Your task to perform on an android device: check out phone information Image 0: 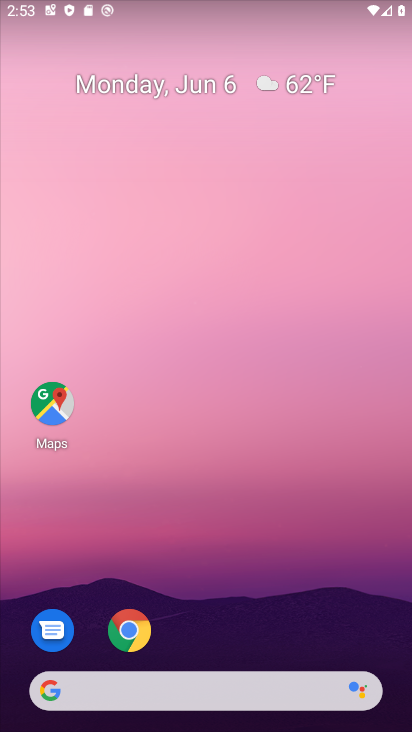
Step 0: drag from (242, 371) to (231, 264)
Your task to perform on an android device: check out phone information Image 1: 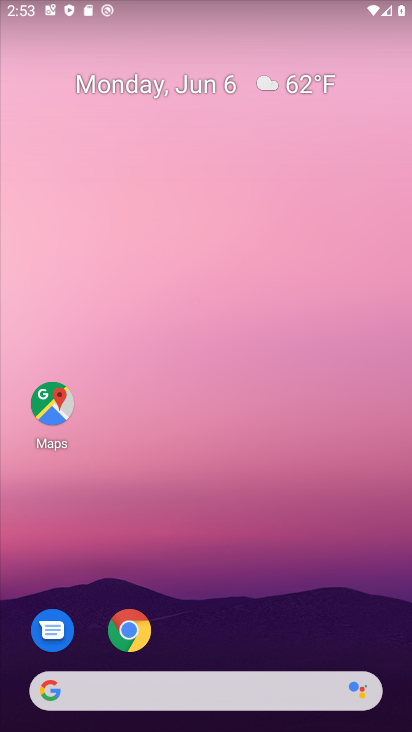
Step 1: drag from (218, 628) to (220, 181)
Your task to perform on an android device: check out phone information Image 2: 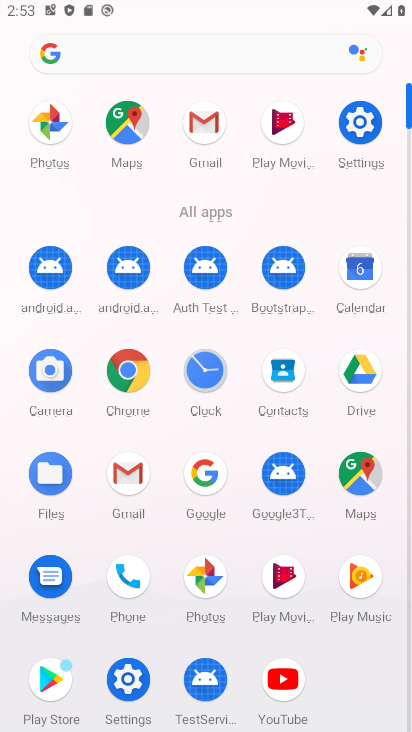
Step 2: click (354, 126)
Your task to perform on an android device: check out phone information Image 3: 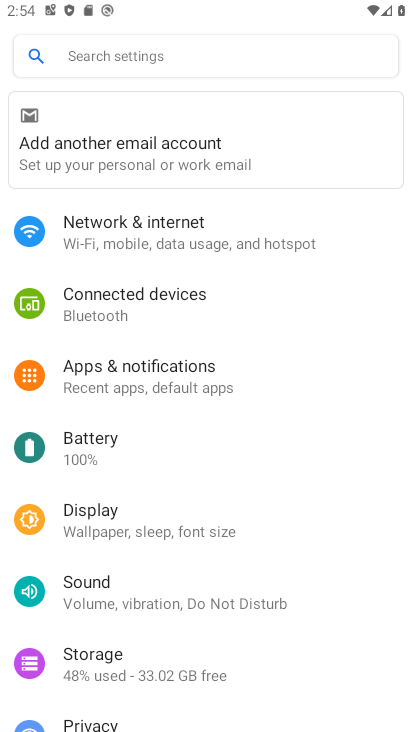
Step 3: drag from (268, 664) to (208, 233)
Your task to perform on an android device: check out phone information Image 4: 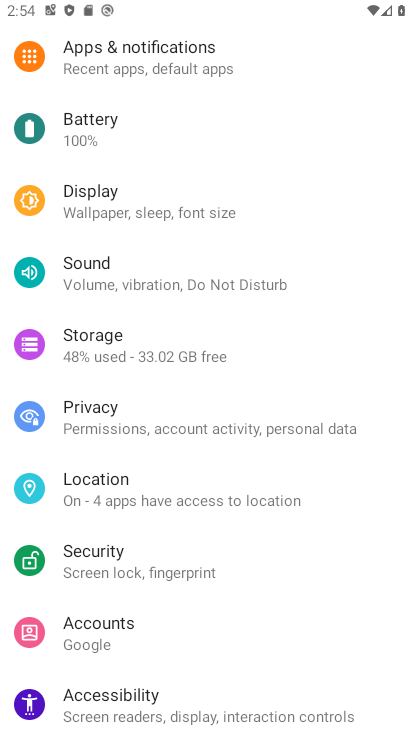
Step 4: drag from (223, 605) to (167, 234)
Your task to perform on an android device: check out phone information Image 5: 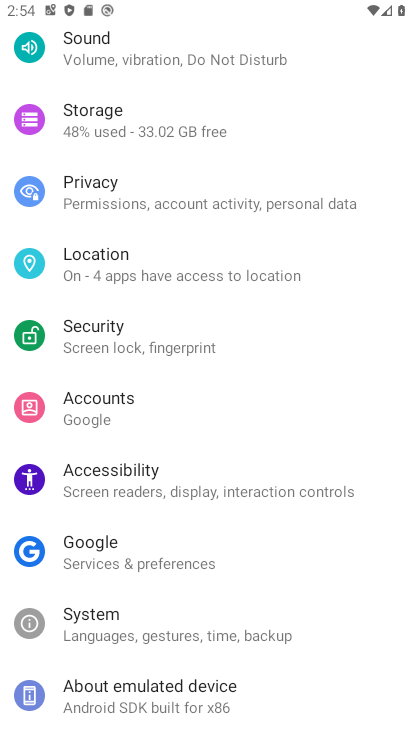
Step 5: drag from (205, 590) to (185, 170)
Your task to perform on an android device: check out phone information Image 6: 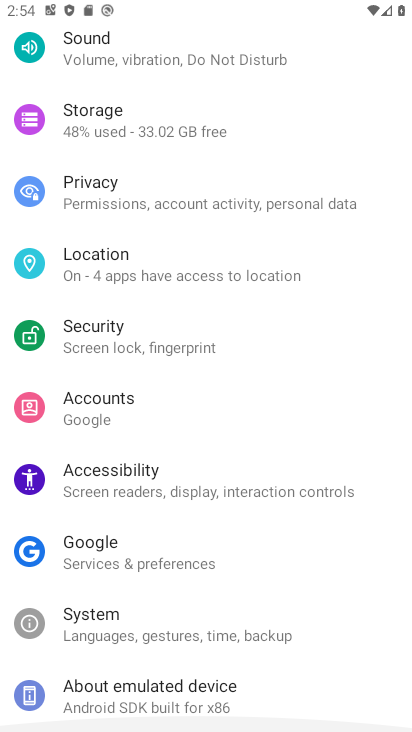
Step 6: drag from (257, 571) to (195, 166)
Your task to perform on an android device: check out phone information Image 7: 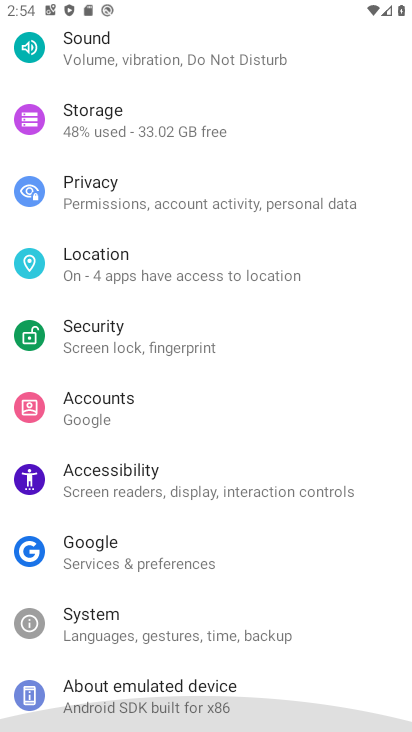
Step 7: drag from (214, 578) to (213, 164)
Your task to perform on an android device: check out phone information Image 8: 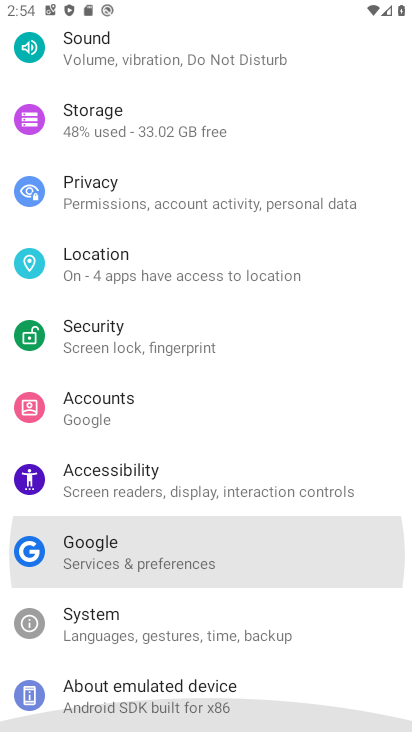
Step 8: drag from (213, 574) to (227, 166)
Your task to perform on an android device: check out phone information Image 9: 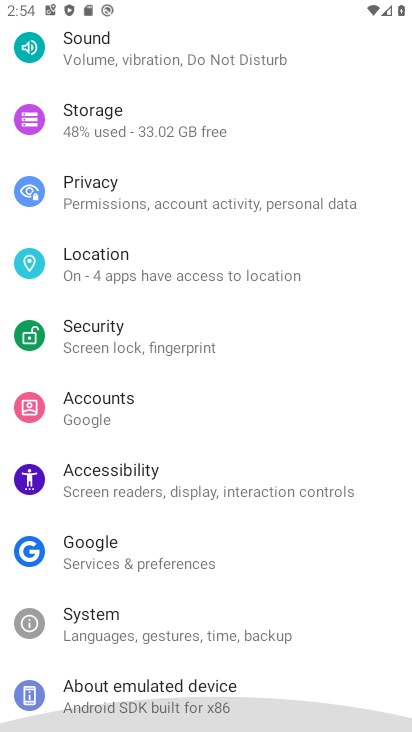
Step 9: drag from (230, 565) to (228, 190)
Your task to perform on an android device: check out phone information Image 10: 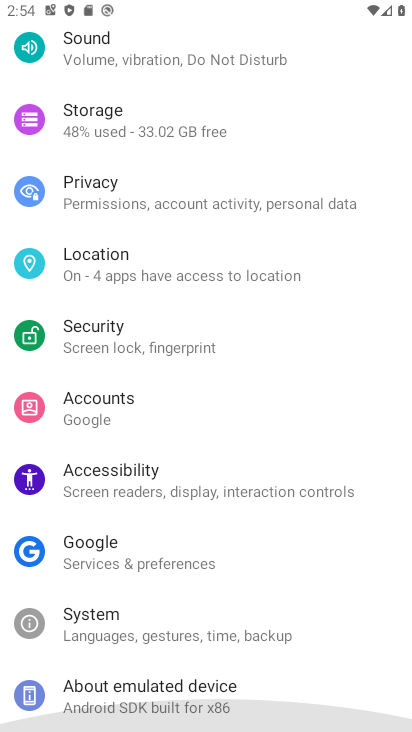
Step 10: drag from (229, 658) to (230, 244)
Your task to perform on an android device: check out phone information Image 11: 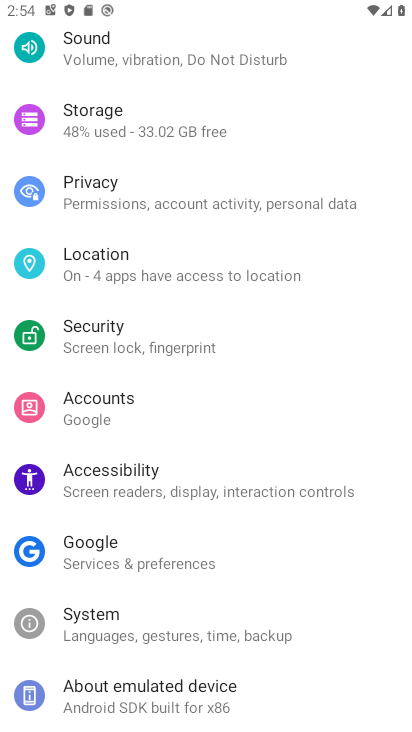
Step 11: click (187, 698)
Your task to perform on an android device: check out phone information Image 12: 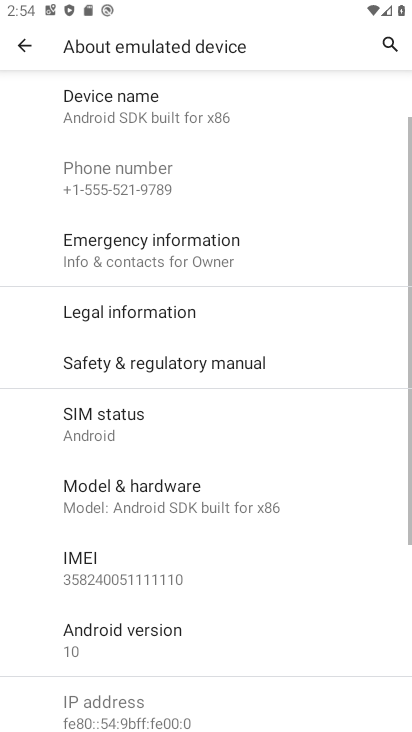
Step 12: task complete